Your task to perform on an android device: Open accessibility settings Image 0: 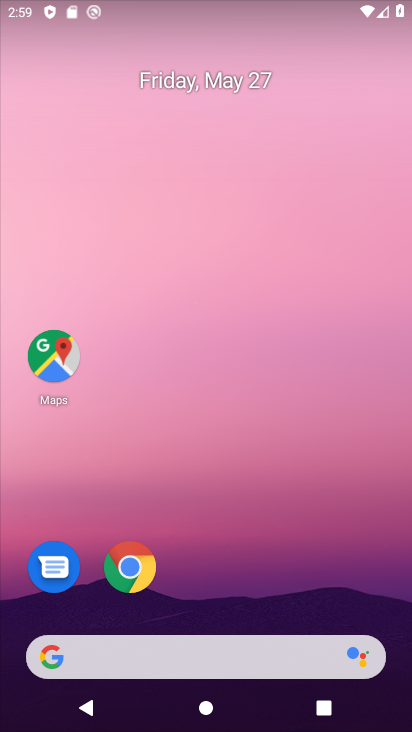
Step 0: drag from (219, 8) to (196, 550)
Your task to perform on an android device: Open accessibility settings Image 1: 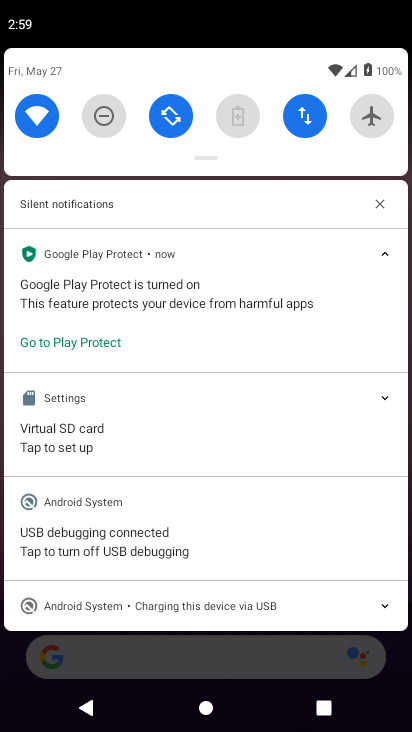
Step 1: press back button
Your task to perform on an android device: Open accessibility settings Image 2: 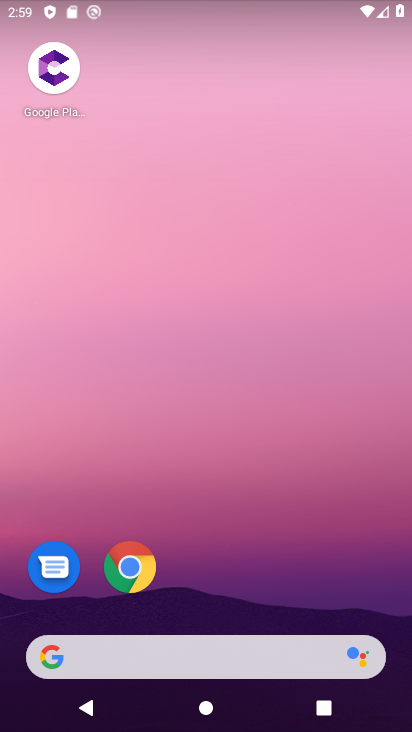
Step 2: drag from (172, 653) to (250, 120)
Your task to perform on an android device: Open accessibility settings Image 3: 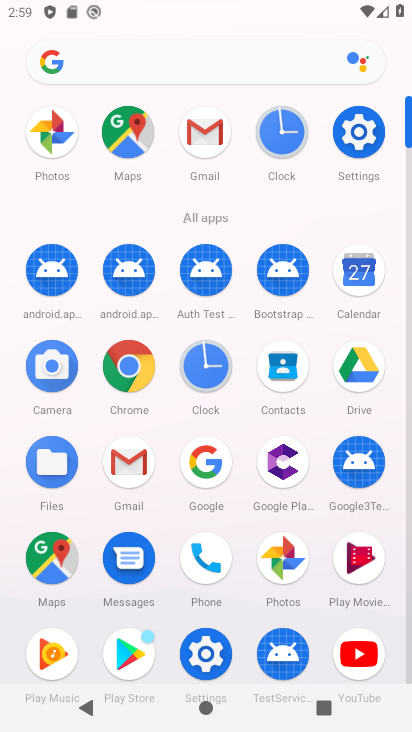
Step 3: click (360, 125)
Your task to perform on an android device: Open accessibility settings Image 4: 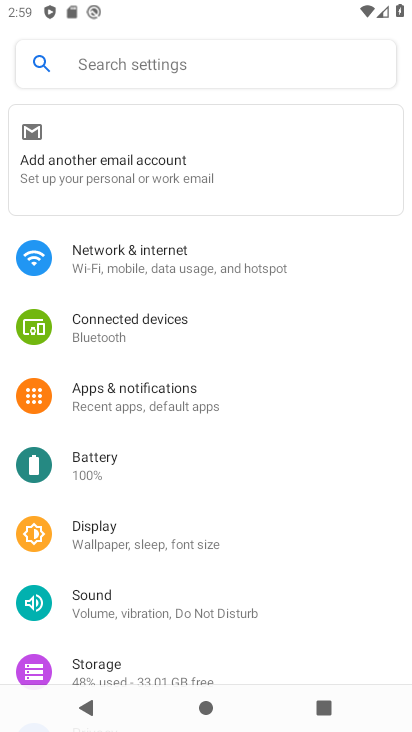
Step 4: drag from (181, 643) to (254, 84)
Your task to perform on an android device: Open accessibility settings Image 5: 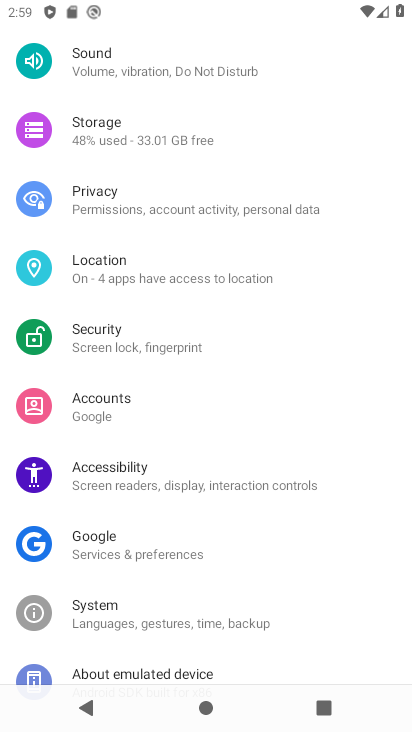
Step 5: click (181, 473)
Your task to perform on an android device: Open accessibility settings Image 6: 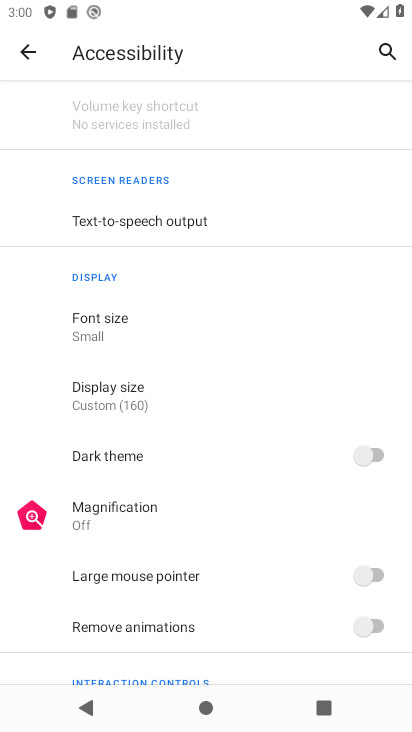
Step 6: task complete